Your task to perform on an android device: Clear the shopping cart on newegg.com. Search for sony triple a on newegg.com, select the first entry, add it to the cart, then select checkout. Image 0: 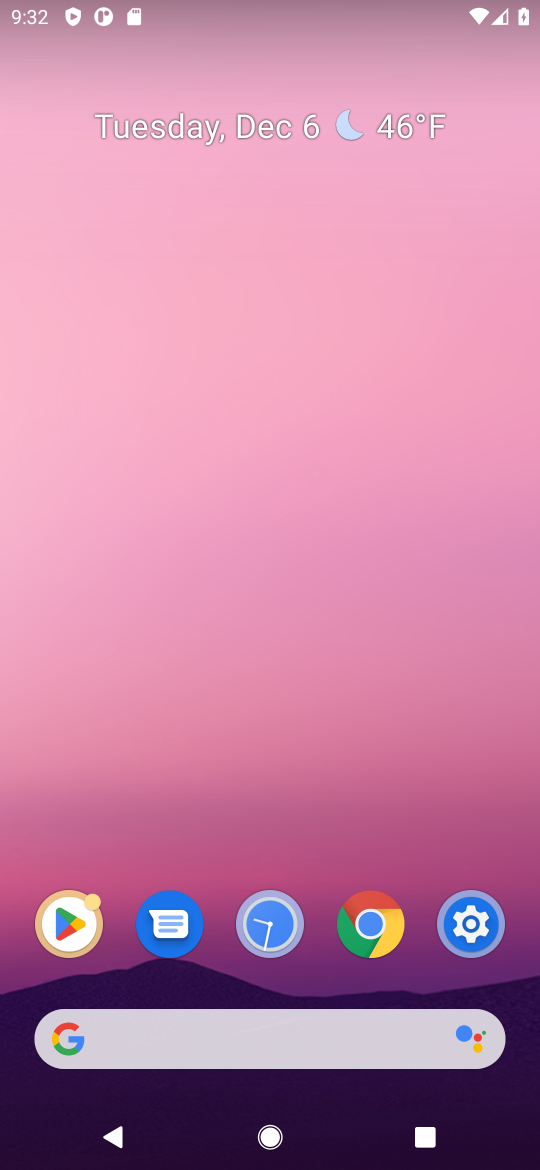
Step 0: click (265, 1021)
Your task to perform on an android device: Clear the shopping cart on newegg.com. Search for sony triple a on newegg.com, select the first entry, add it to the cart, then select checkout. Image 1: 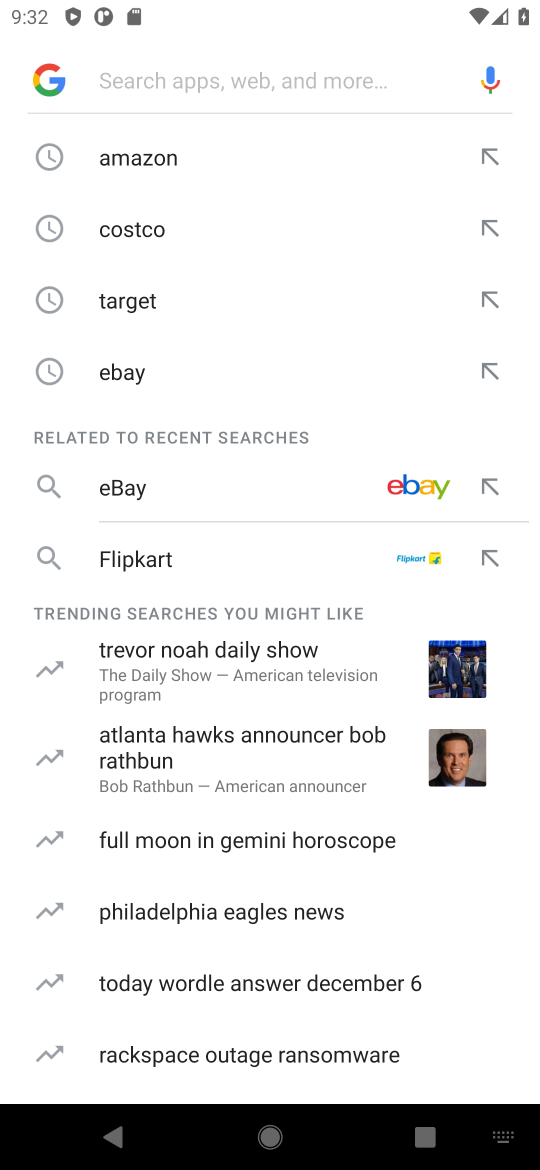
Step 1: type "newegg"
Your task to perform on an android device: Clear the shopping cart on newegg.com. Search for sony triple a on newegg.com, select the first entry, add it to the cart, then select checkout. Image 2: 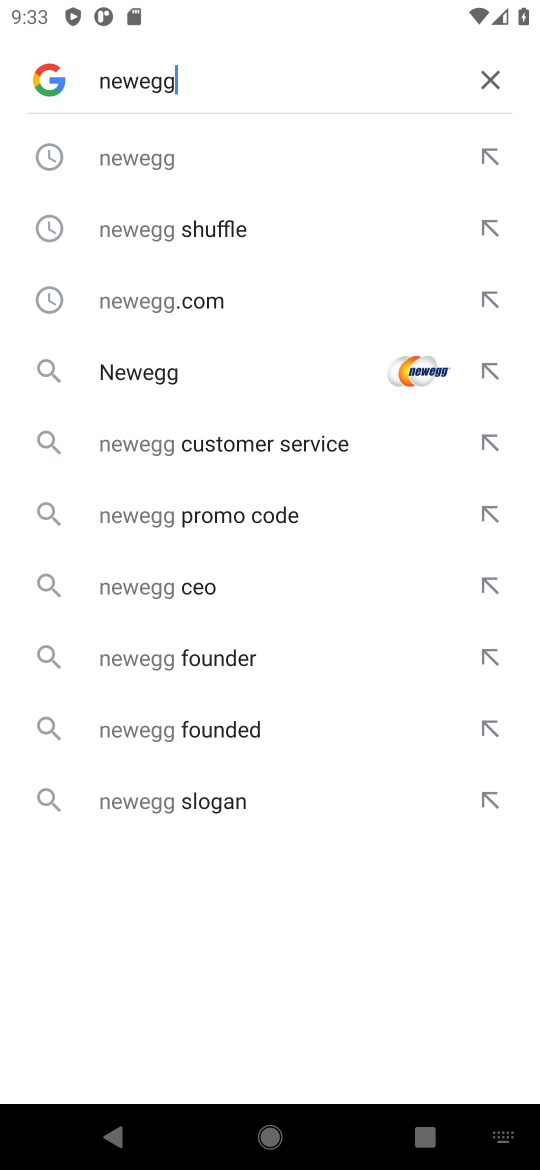
Step 2: click (297, 399)
Your task to perform on an android device: Clear the shopping cart on newegg.com. Search for sony triple a on newegg.com, select the first entry, add it to the cart, then select checkout. Image 3: 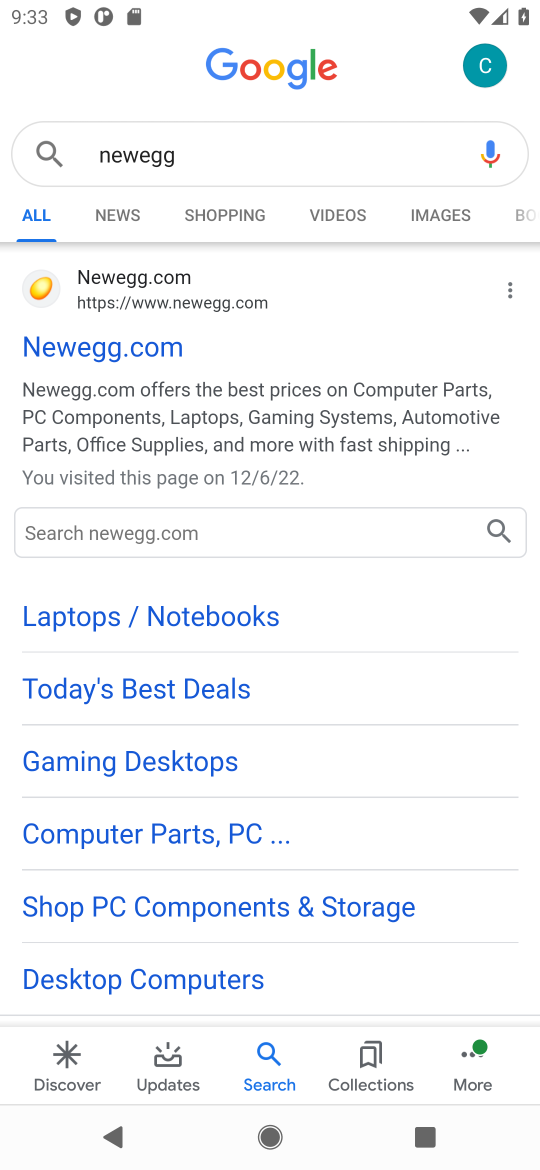
Step 3: click (140, 344)
Your task to perform on an android device: Clear the shopping cart on newegg.com. Search for sony triple a on newegg.com, select the first entry, add it to the cart, then select checkout. Image 4: 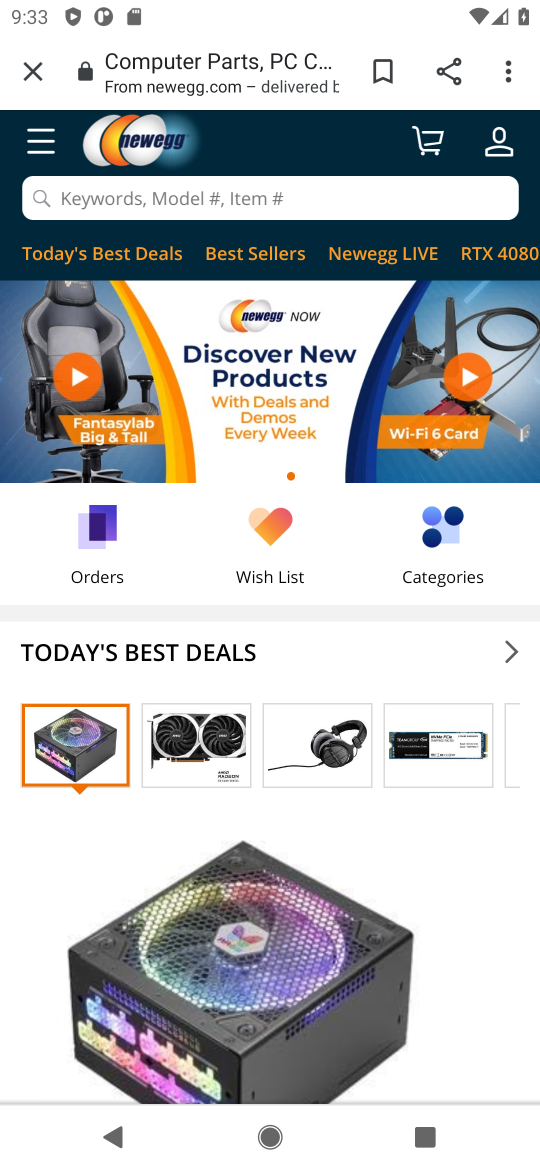
Step 4: click (297, 198)
Your task to perform on an android device: Clear the shopping cart on newegg.com. Search for sony triple a on newegg.com, select the first entry, add it to the cart, then select checkout. Image 5: 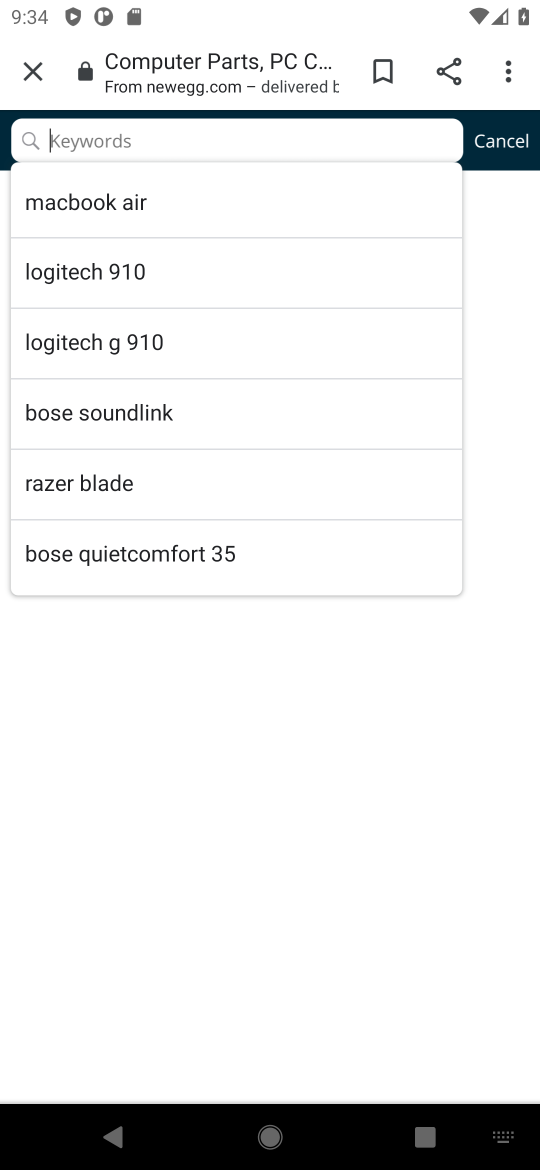
Step 5: type "sony triple a"
Your task to perform on an android device: Clear the shopping cart on newegg.com. Search for sony triple a on newegg.com, select the first entry, add it to the cart, then select checkout. Image 6: 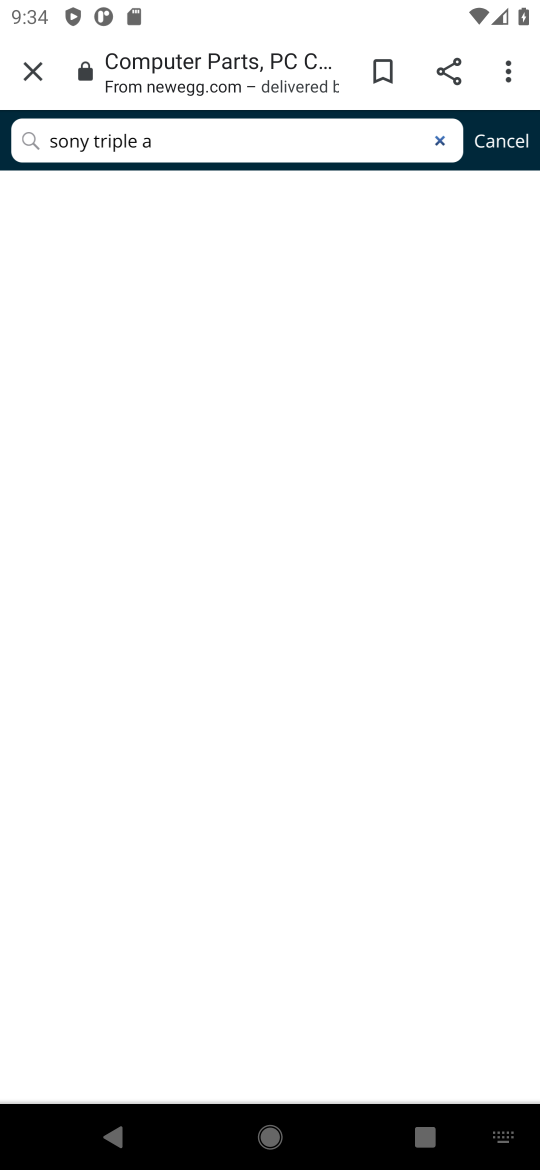
Step 6: task complete